Your task to perform on an android device: turn on sleep mode Image 0: 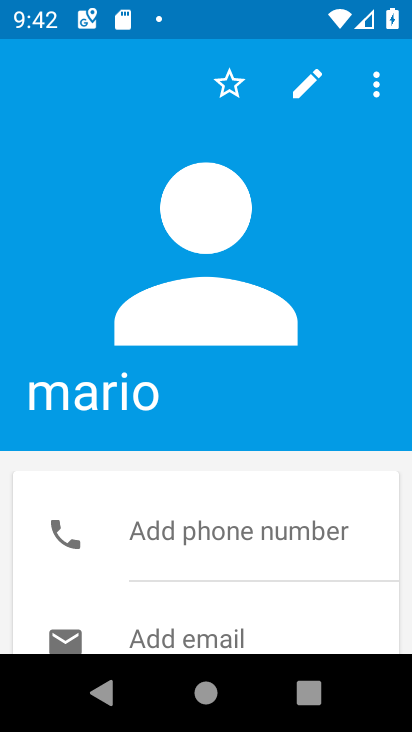
Step 0: press home button
Your task to perform on an android device: turn on sleep mode Image 1: 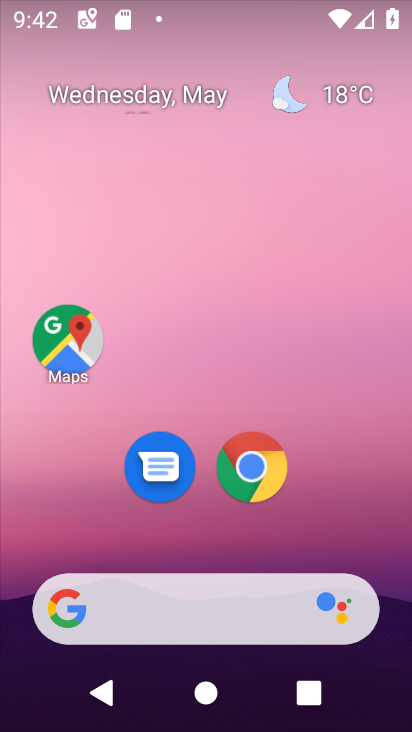
Step 1: drag from (294, 469) to (238, 67)
Your task to perform on an android device: turn on sleep mode Image 2: 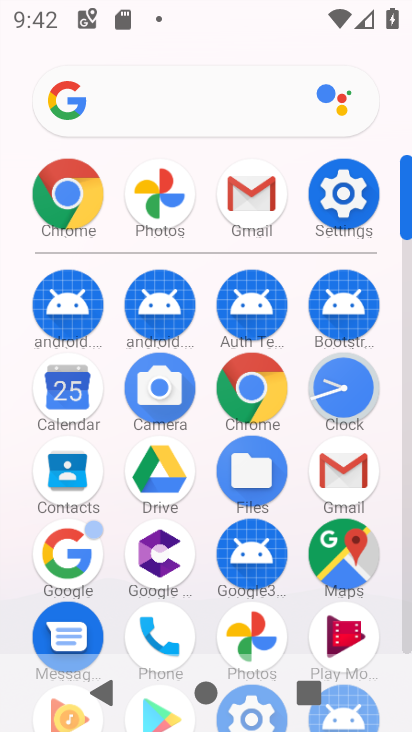
Step 2: click (353, 203)
Your task to perform on an android device: turn on sleep mode Image 3: 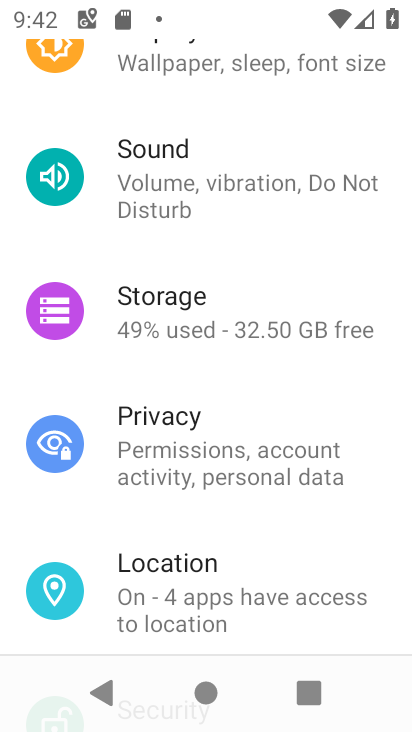
Step 3: drag from (340, 207) to (248, 586)
Your task to perform on an android device: turn on sleep mode Image 4: 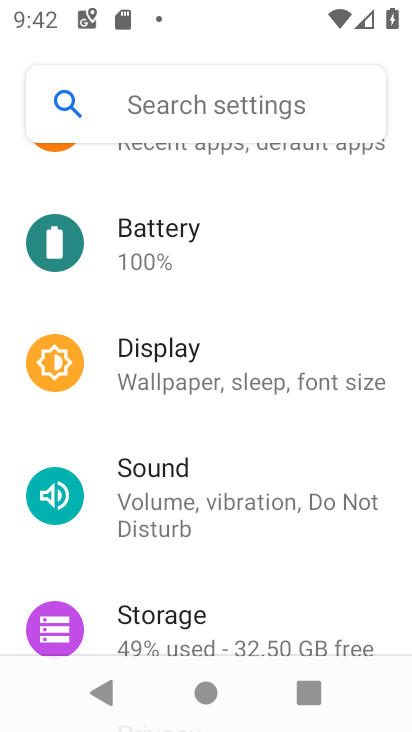
Step 4: drag from (233, 243) to (267, 589)
Your task to perform on an android device: turn on sleep mode Image 5: 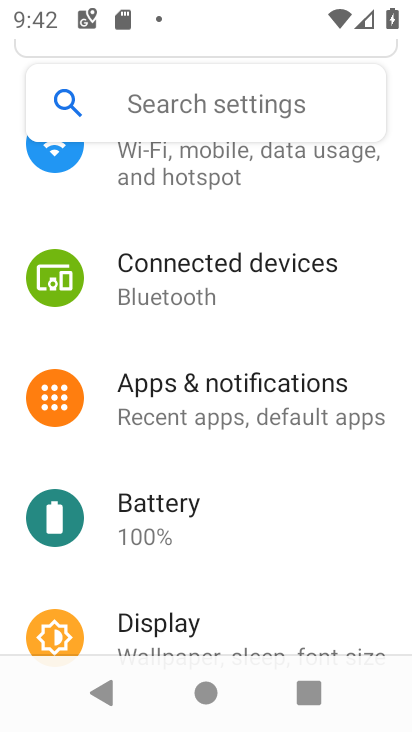
Step 5: drag from (249, 282) to (284, 593)
Your task to perform on an android device: turn on sleep mode Image 6: 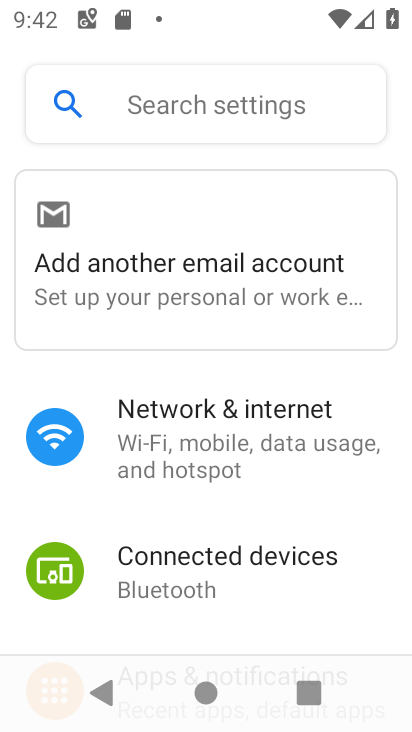
Step 6: click (243, 415)
Your task to perform on an android device: turn on sleep mode Image 7: 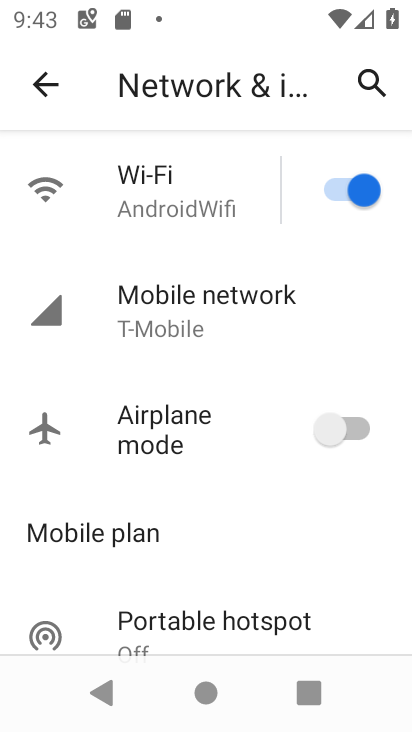
Step 7: click (50, 94)
Your task to perform on an android device: turn on sleep mode Image 8: 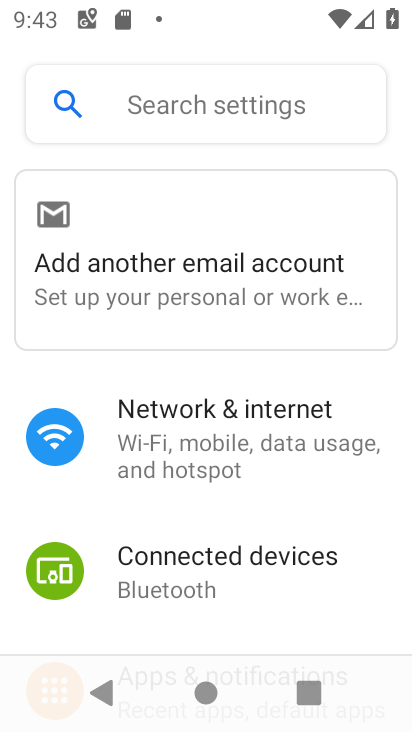
Step 8: drag from (234, 458) to (314, 93)
Your task to perform on an android device: turn on sleep mode Image 9: 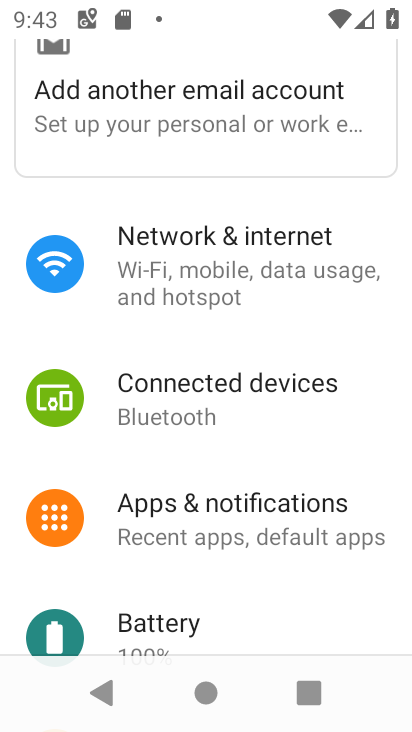
Step 9: drag from (236, 548) to (291, 156)
Your task to perform on an android device: turn on sleep mode Image 10: 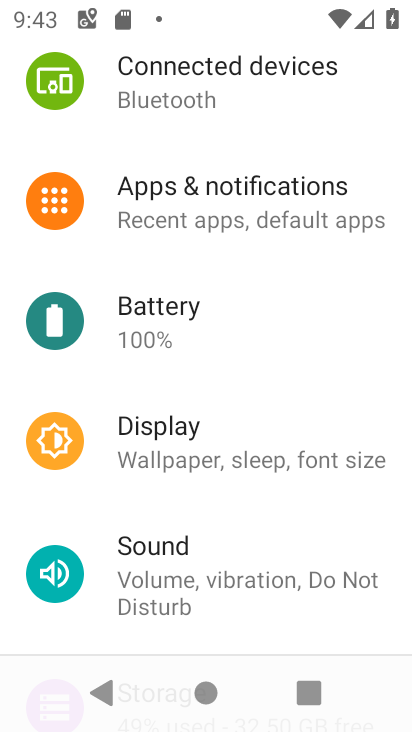
Step 10: click (192, 406)
Your task to perform on an android device: turn on sleep mode Image 11: 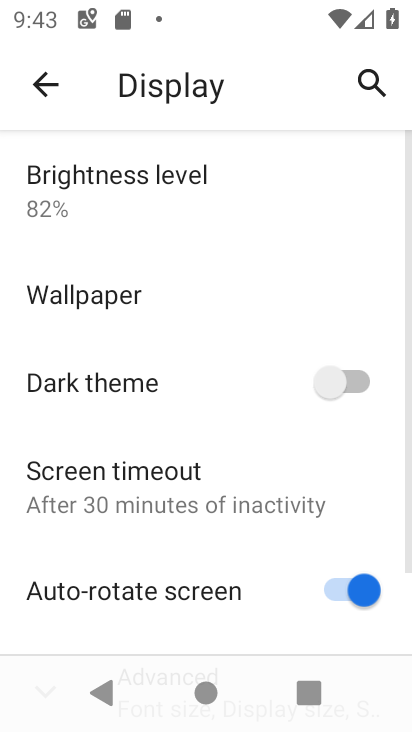
Step 11: click (216, 499)
Your task to perform on an android device: turn on sleep mode Image 12: 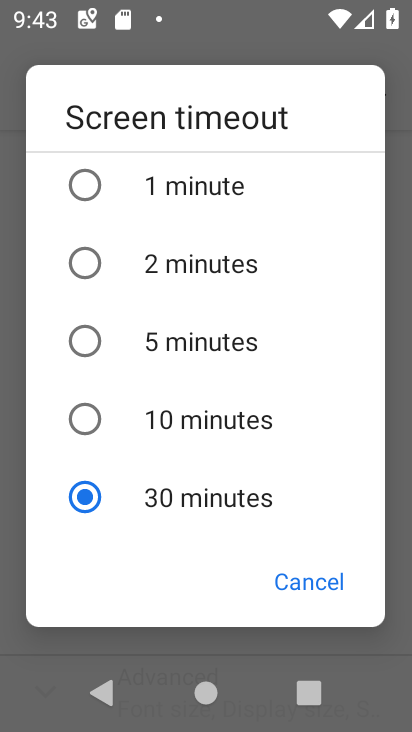
Step 12: task complete